Your task to perform on an android device: manage bookmarks in the chrome app Image 0: 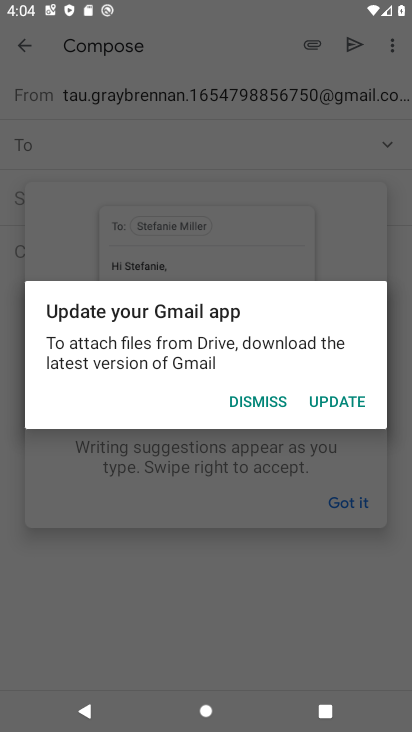
Step 0: press home button
Your task to perform on an android device: manage bookmarks in the chrome app Image 1: 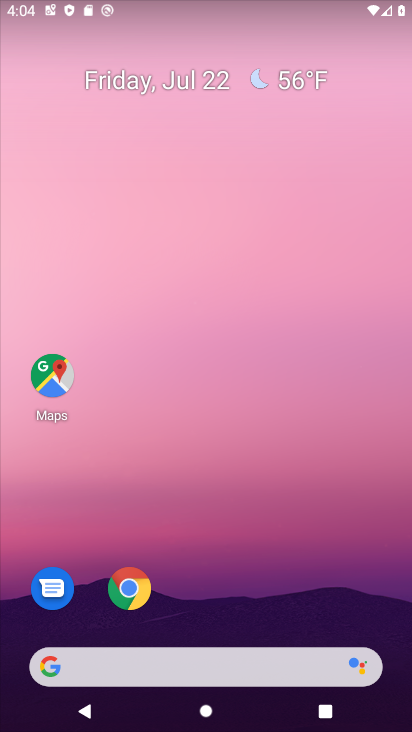
Step 1: click (143, 594)
Your task to perform on an android device: manage bookmarks in the chrome app Image 2: 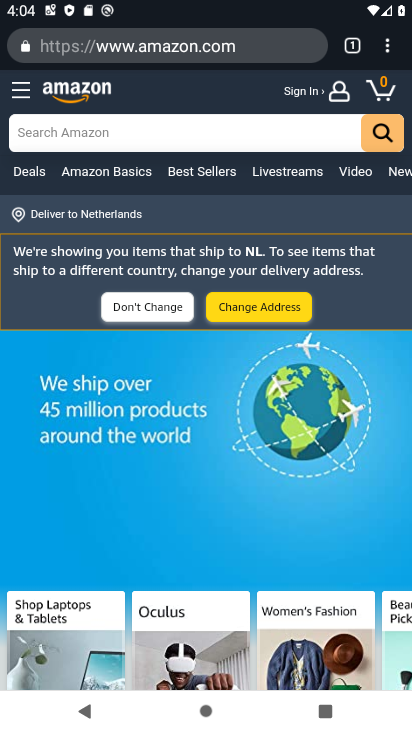
Step 2: click (390, 39)
Your task to perform on an android device: manage bookmarks in the chrome app Image 3: 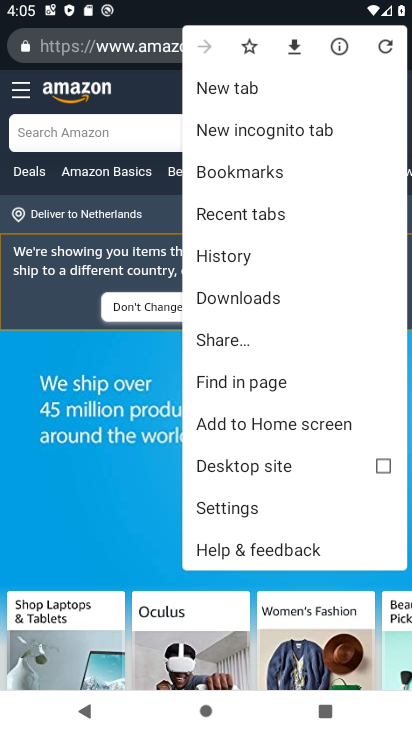
Step 3: click (257, 181)
Your task to perform on an android device: manage bookmarks in the chrome app Image 4: 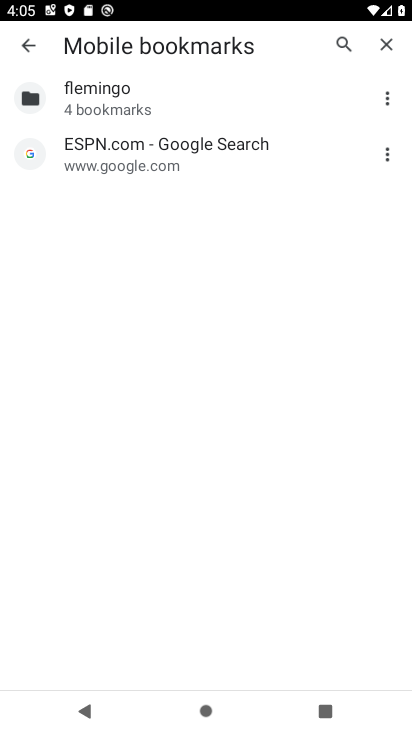
Step 4: click (388, 164)
Your task to perform on an android device: manage bookmarks in the chrome app Image 5: 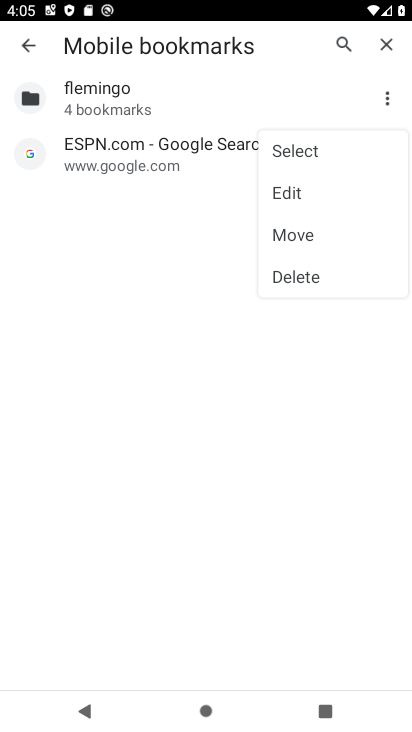
Step 5: click (305, 231)
Your task to perform on an android device: manage bookmarks in the chrome app Image 6: 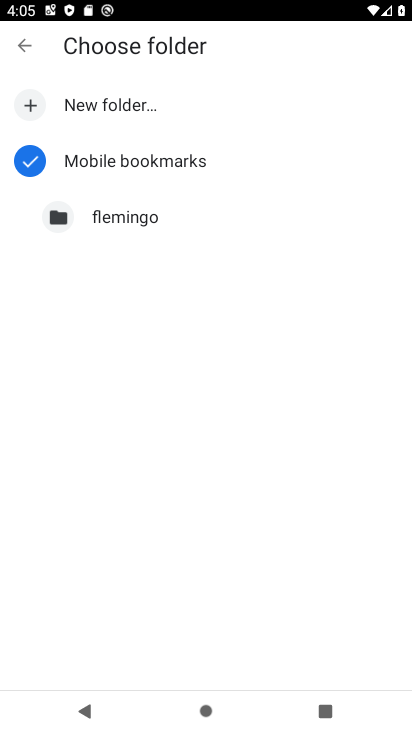
Step 6: click (77, 199)
Your task to perform on an android device: manage bookmarks in the chrome app Image 7: 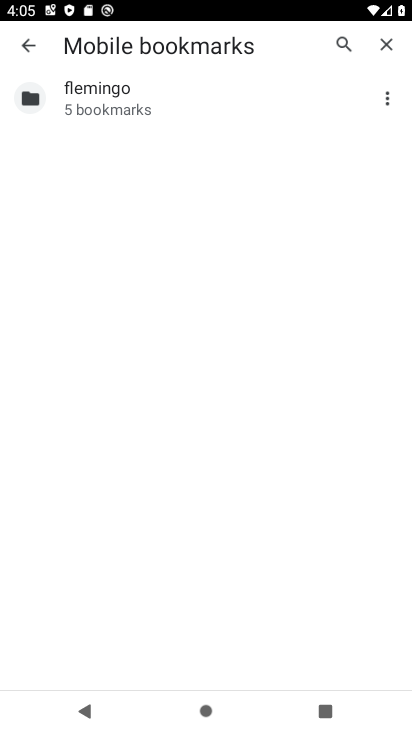
Step 7: task complete